Your task to perform on an android device: change the clock style Image 0: 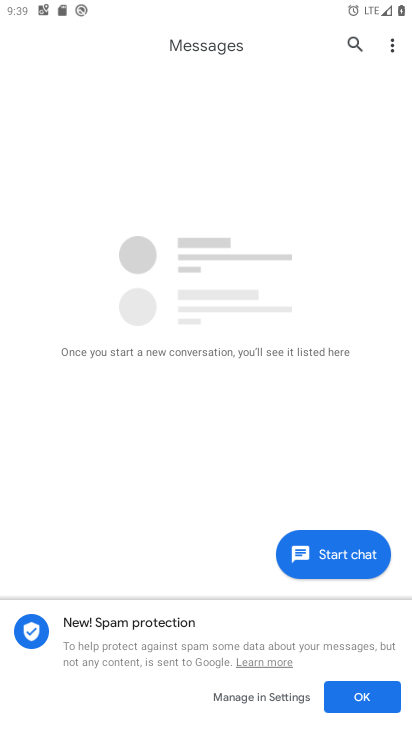
Step 0: press home button
Your task to perform on an android device: change the clock style Image 1: 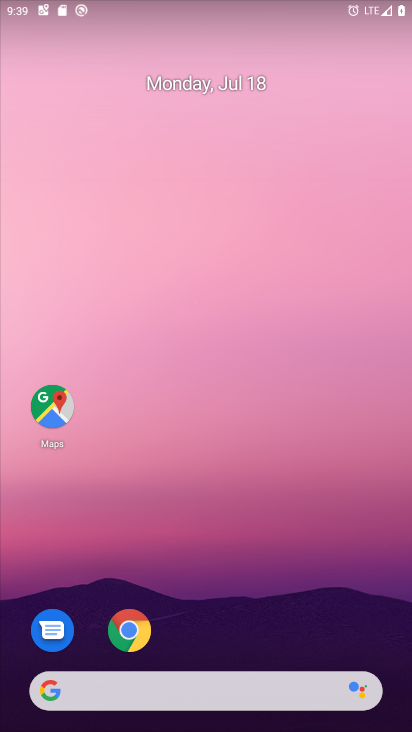
Step 1: drag from (208, 632) to (227, 214)
Your task to perform on an android device: change the clock style Image 2: 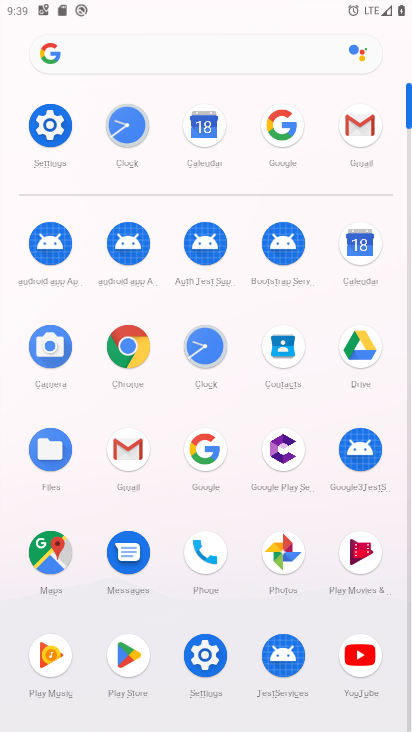
Step 2: click (116, 125)
Your task to perform on an android device: change the clock style Image 3: 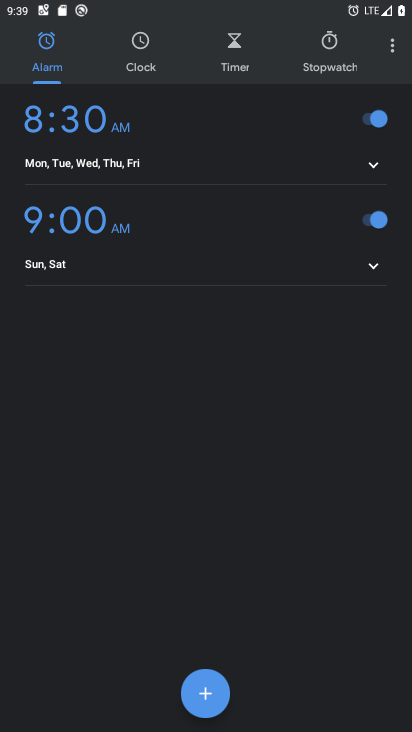
Step 3: click (395, 52)
Your task to perform on an android device: change the clock style Image 4: 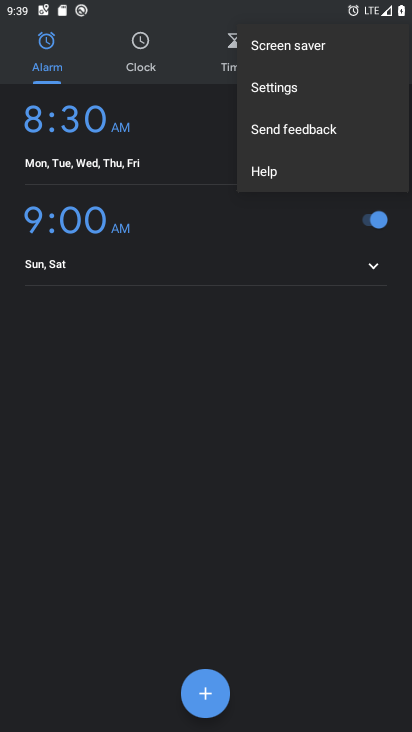
Step 4: click (312, 96)
Your task to perform on an android device: change the clock style Image 5: 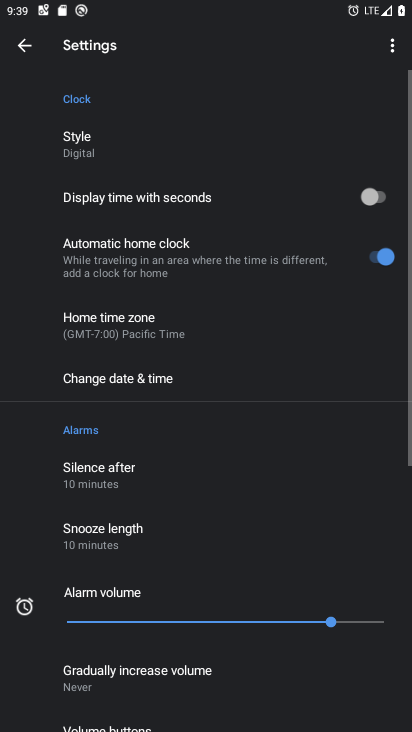
Step 5: click (70, 156)
Your task to perform on an android device: change the clock style Image 6: 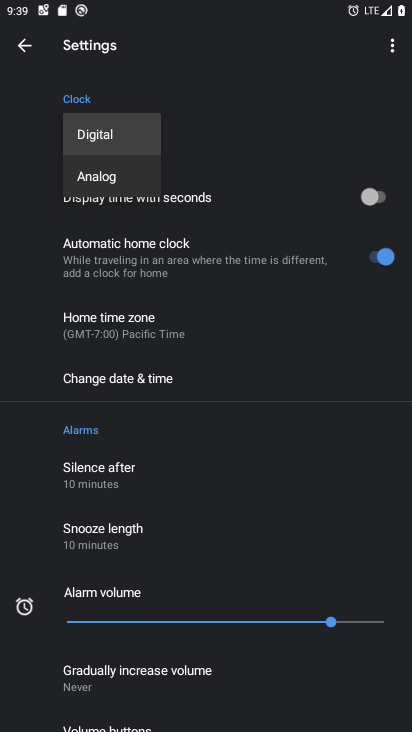
Step 6: click (98, 185)
Your task to perform on an android device: change the clock style Image 7: 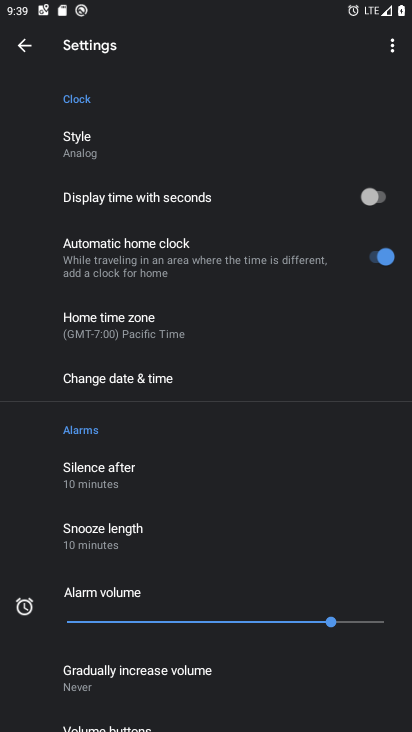
Step 7: task complete